Your task to perform on an android device: open app "LiveIn - Share Your Moment" (install if not already installed) Image 0: 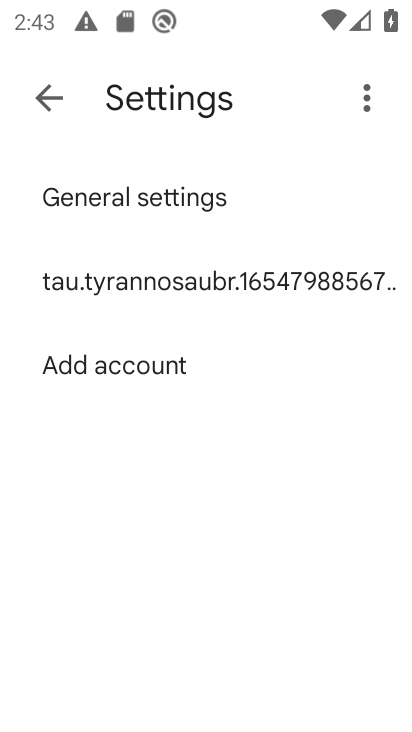
Step 0: press home button
Your task to perform on an android device: open app "LiveIn - Share Your Moment" (install if not already installed) Image 1: 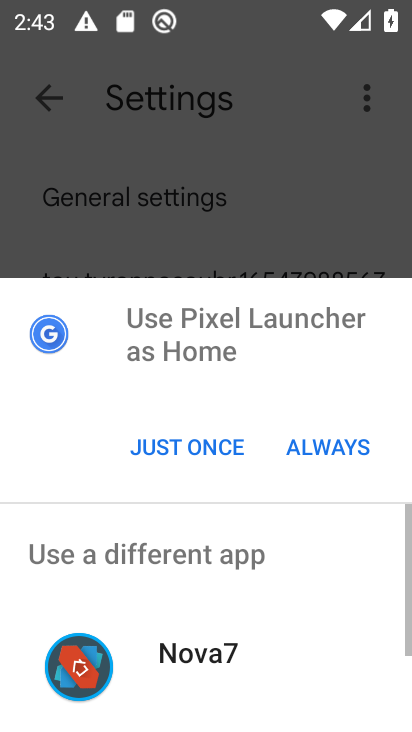
Step 1: click (216, 446)
Your task to perform on an android device: open app "LiveIn - Share Your Moment" (install if not already installed) Image 2: 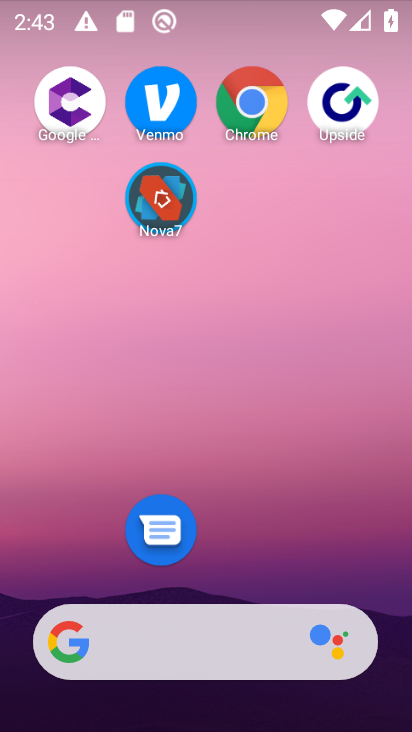
Step 2: drag from (298, 485) to (316, 122)
Your task to perform on an android device: open app "LiveIn - Share Your Moment" (install if not already installed) Image 3: 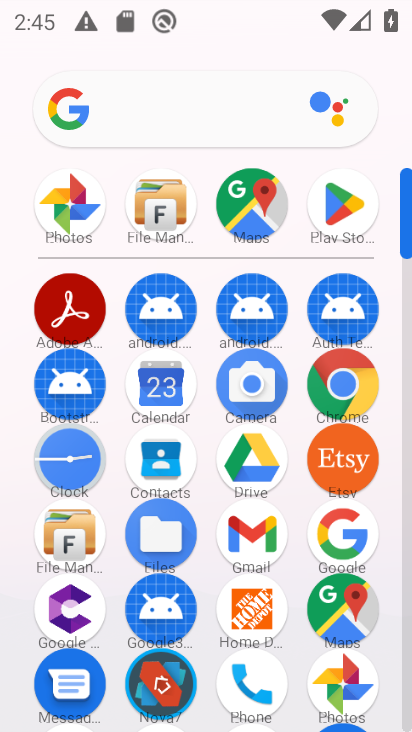
Step 3: click (338, 208)
Your task to perform on an android device: open app "LiveIn - Share Your Moment" (install if not already installed) Image 4: 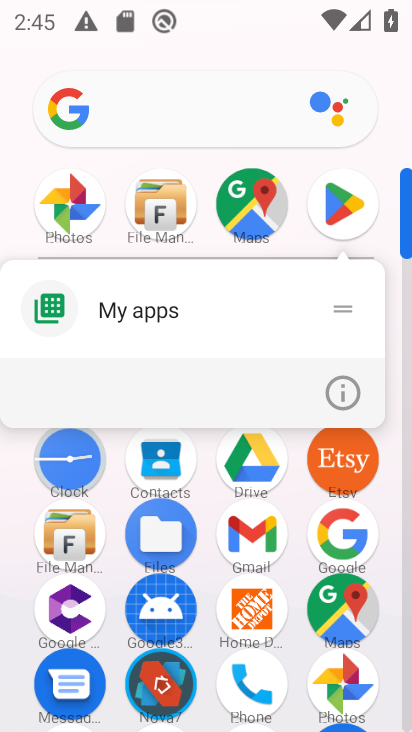
Step 4: click (341, 204)
Your task to perform on an android device: open app "LiveIn - Share Your Moment" (install if not already installed) Image 5: 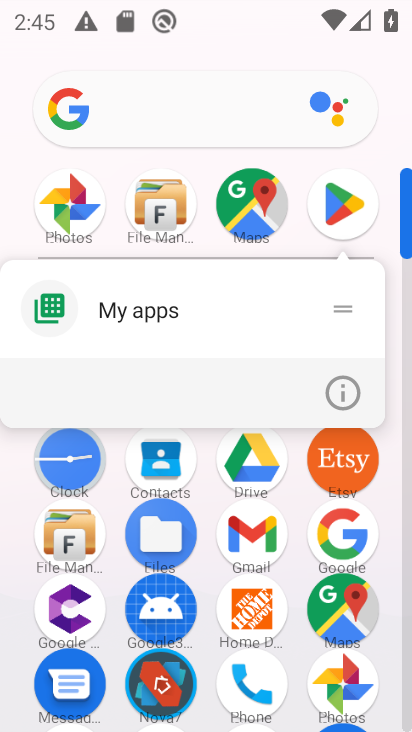
Step 5: click (346, 206)
Your task to perform on an android device: open app "LiveIn - Share Your Moment" (install if not already installed) Image 6: 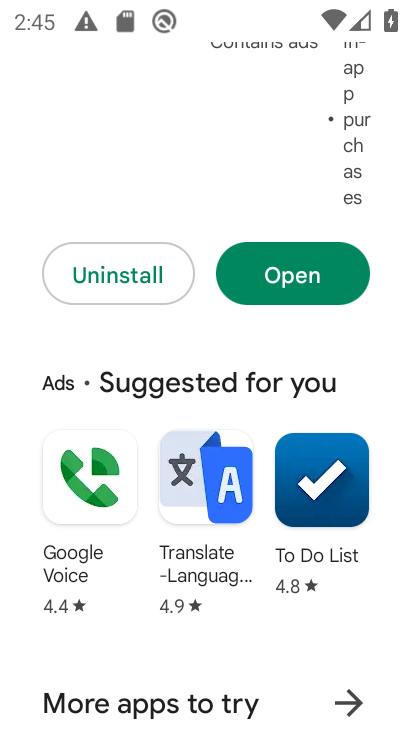
Step 6: drag from (163, 173) to (206, 600)
Your task to perform on an android device: open app "LiveIn - Share Your Moment" (install if not already installed) Image 7: 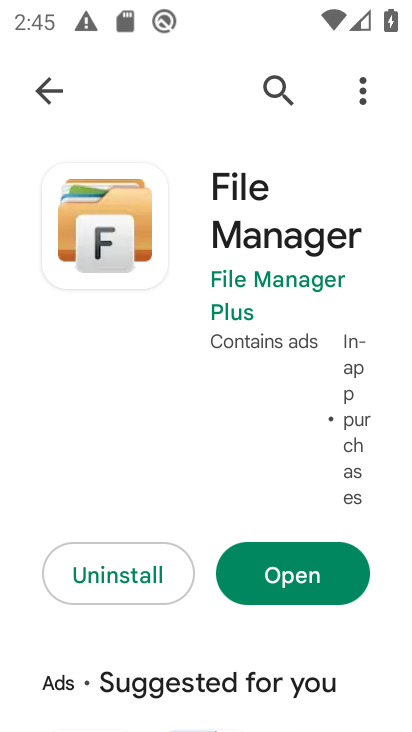
Step 7: press back button
Your task to perform on an android device: open app "LiveIn - Share Your Moment" (install if not already installed) Image 8: 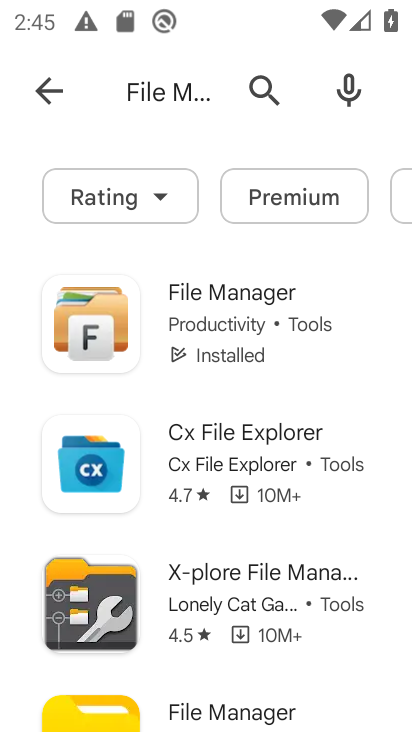
Step 8: press back button
Your task to perform on an android device: open app "LiveIn - Share Your Moment" (install if not already installed) Image 9: 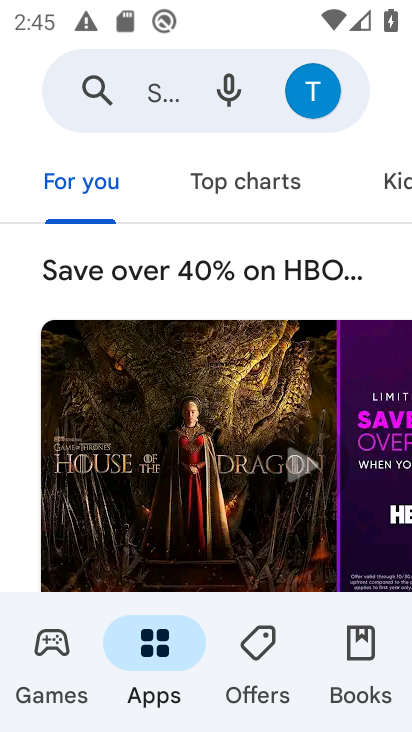
Step 9: click (141, 95)
Your task to perform on an android device: open app "LiveIn - Share Your Moment" (install if not already installed) Image 10: 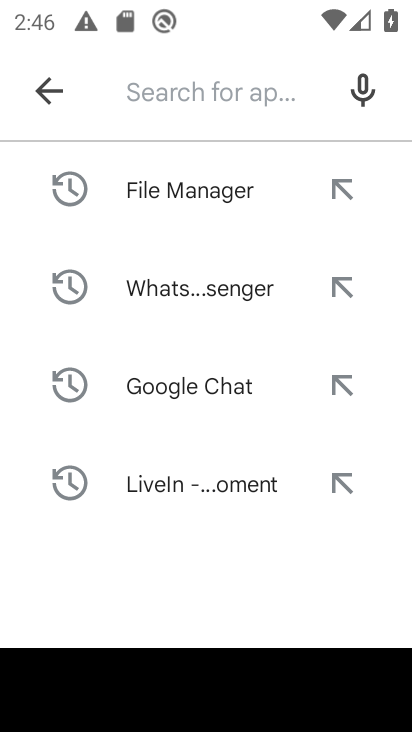
Step 10: type "LiveIn - Share Your Moment"
Your task to perform on an android device: open app "LiveIn - Share Your Moment" (install if not already installed) Image 11: 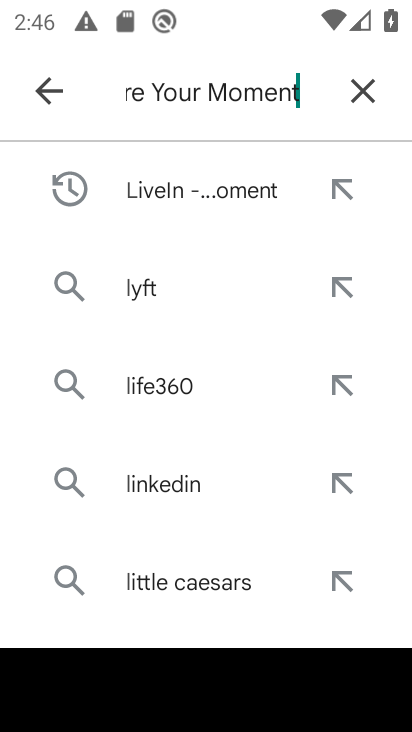
Step 11: press enter
Your task to perform on an android device: open app "LiveIn - Share Your Moment" (install if not already installed) Image 12: 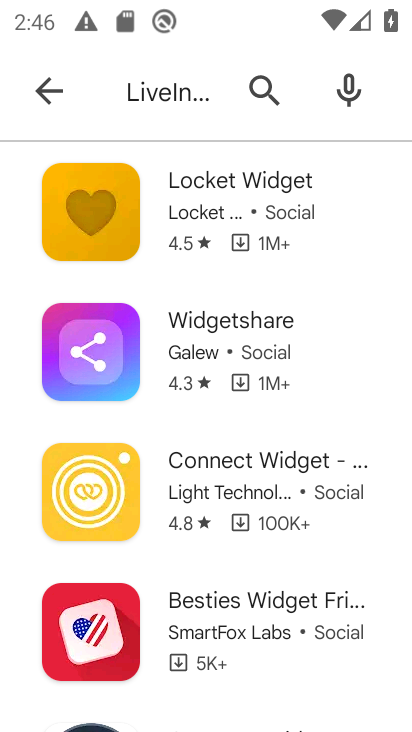
Step 12: task complete